Your task to perform on an android device: open a bookmark in the chrome app Image 0: 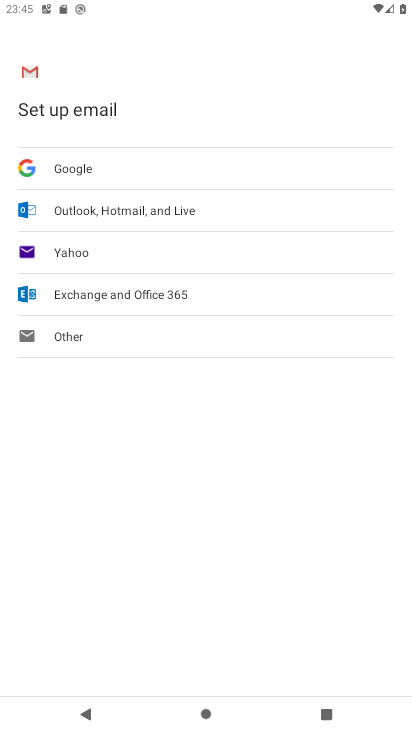
Step 0: press home button
Your task to perform on an android device: open a bookmark in the chrome app Image 1: 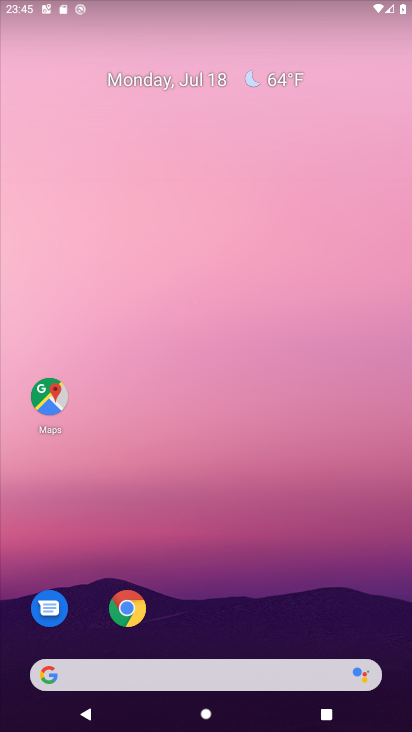
Step 1: drag from (292, 577) to (318, 59)
Your task to perform on an android device: open a bookmark in the chrome app Image 2: 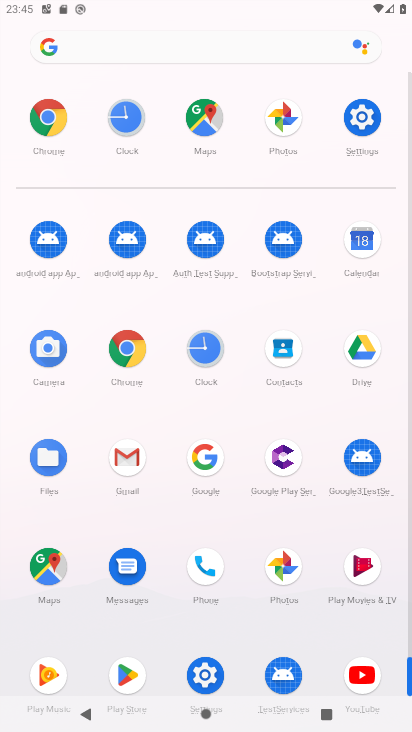
Step 2: click (129, 351)
Your task to perform on an android device: open a bookmark in the chrome app Image 3: 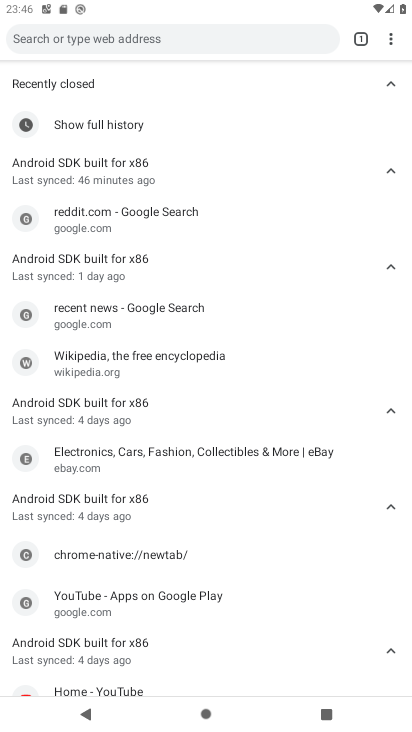
Step 3: click (388, 45)
Your task to perform on an android device: open a bookmark in the chrome app Image 4: 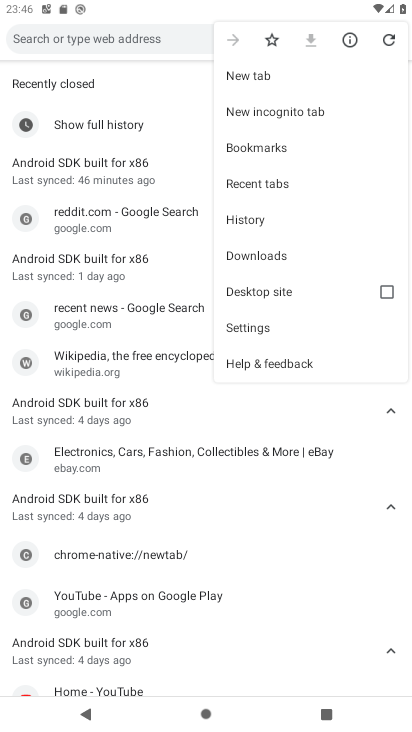
Step 4: click (275, 151)
Your task to perform on an android device: open a bookmark in the chrome app Image 5: 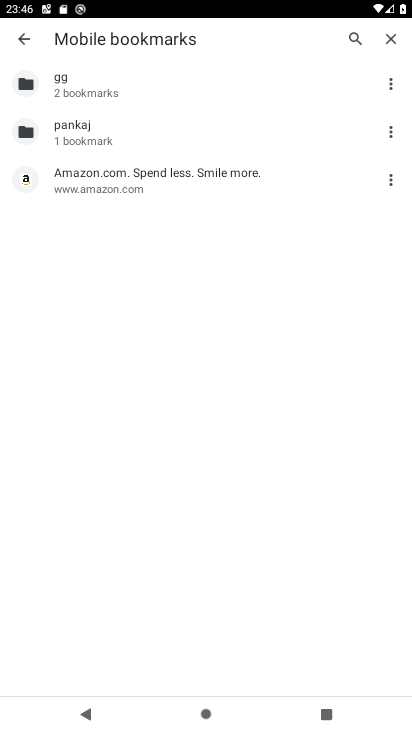
Step 5: click (246, 185)
Your task to perform on an android device: open a bookmark in the chrome app Image 6: 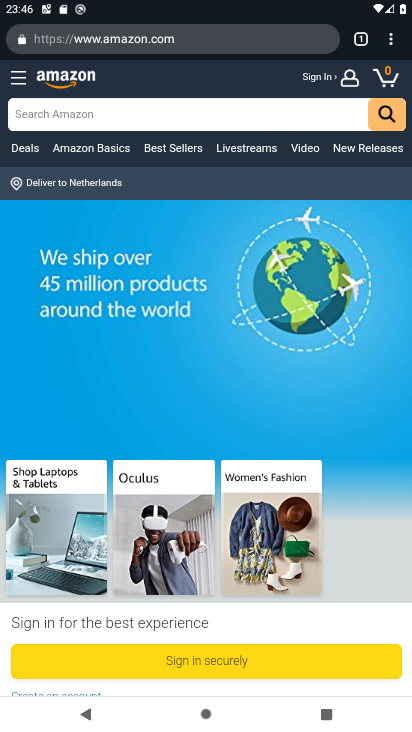
Step 6: task complete